Your task to perform on an android device: open device folders in google photos Image 0: 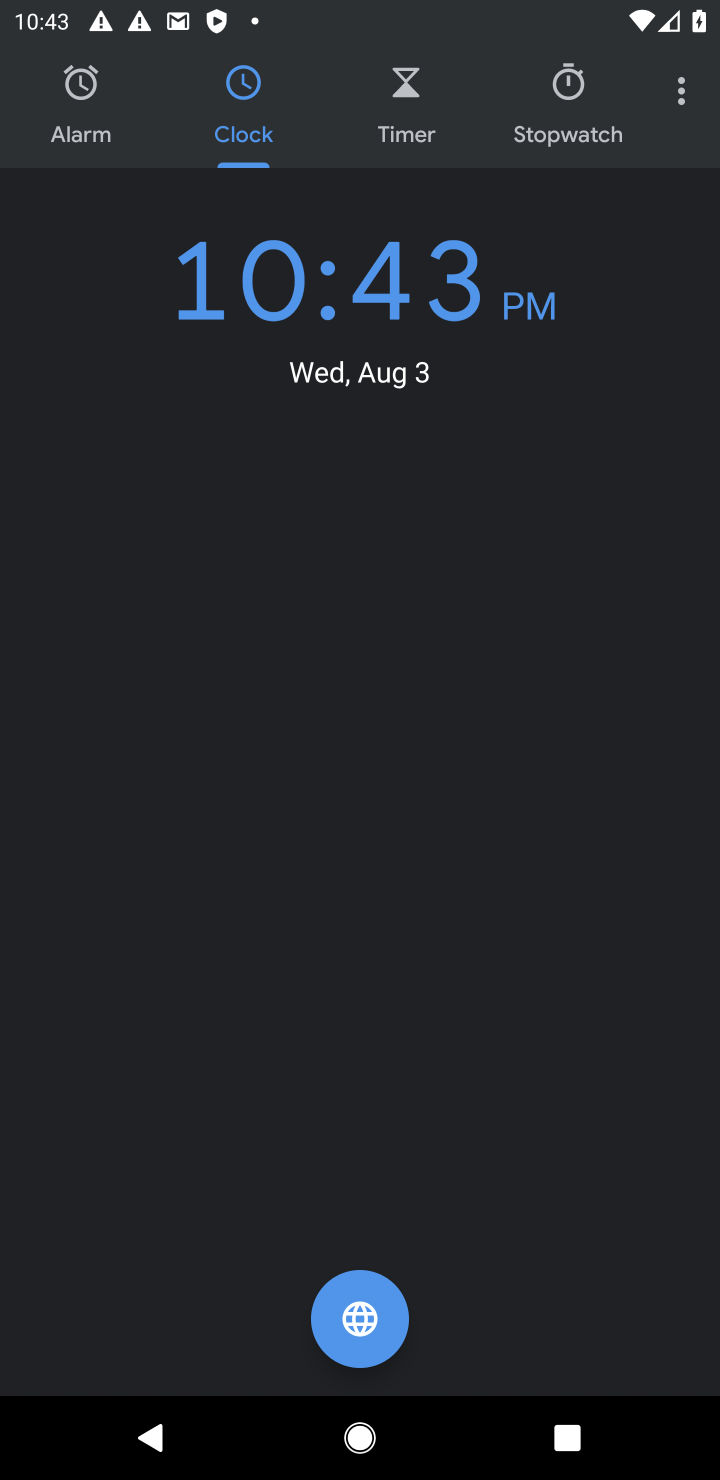
Step 0: press home button
Your task to perform on an android device: open device folders in google photos Image 1: 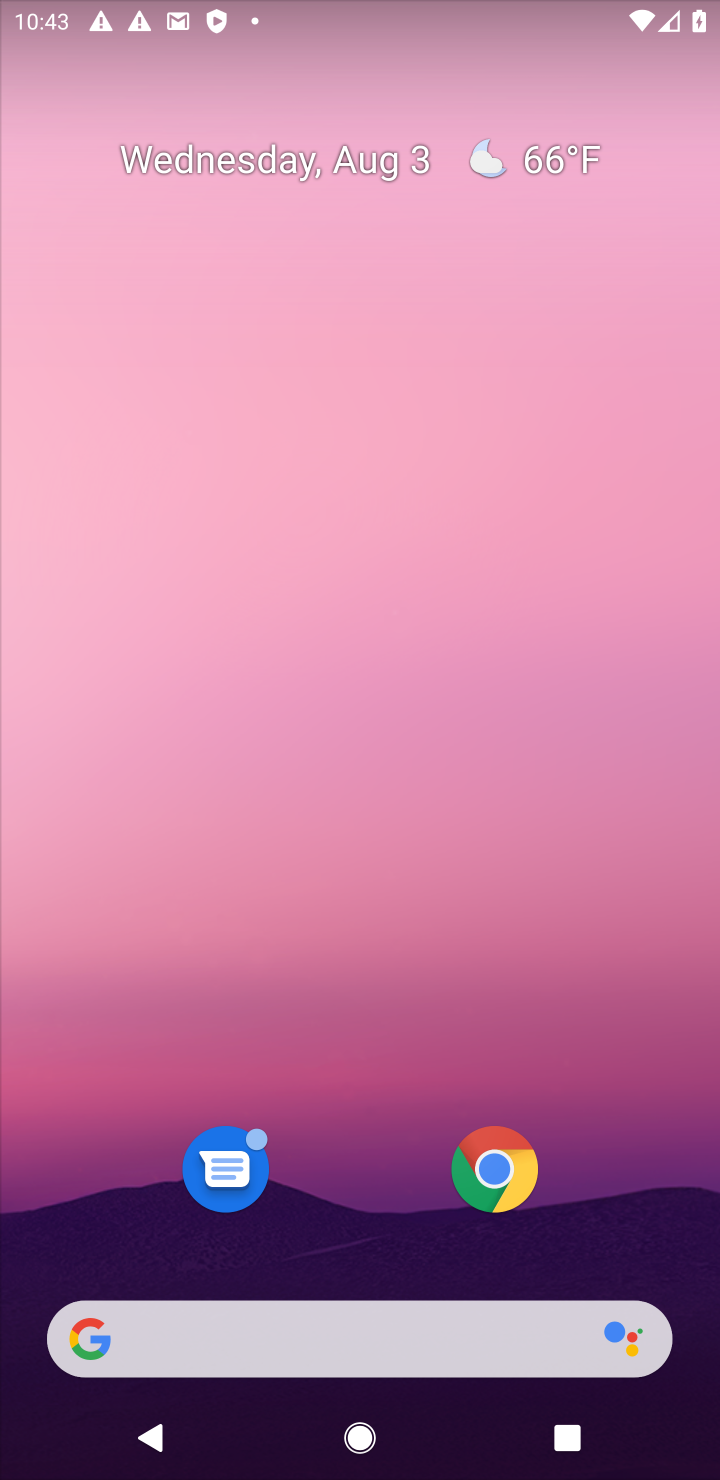
Step 1: drag from (368, 1050) to (348, 2)
Your task to perform on an android device: open device folders in google photos Image 2: 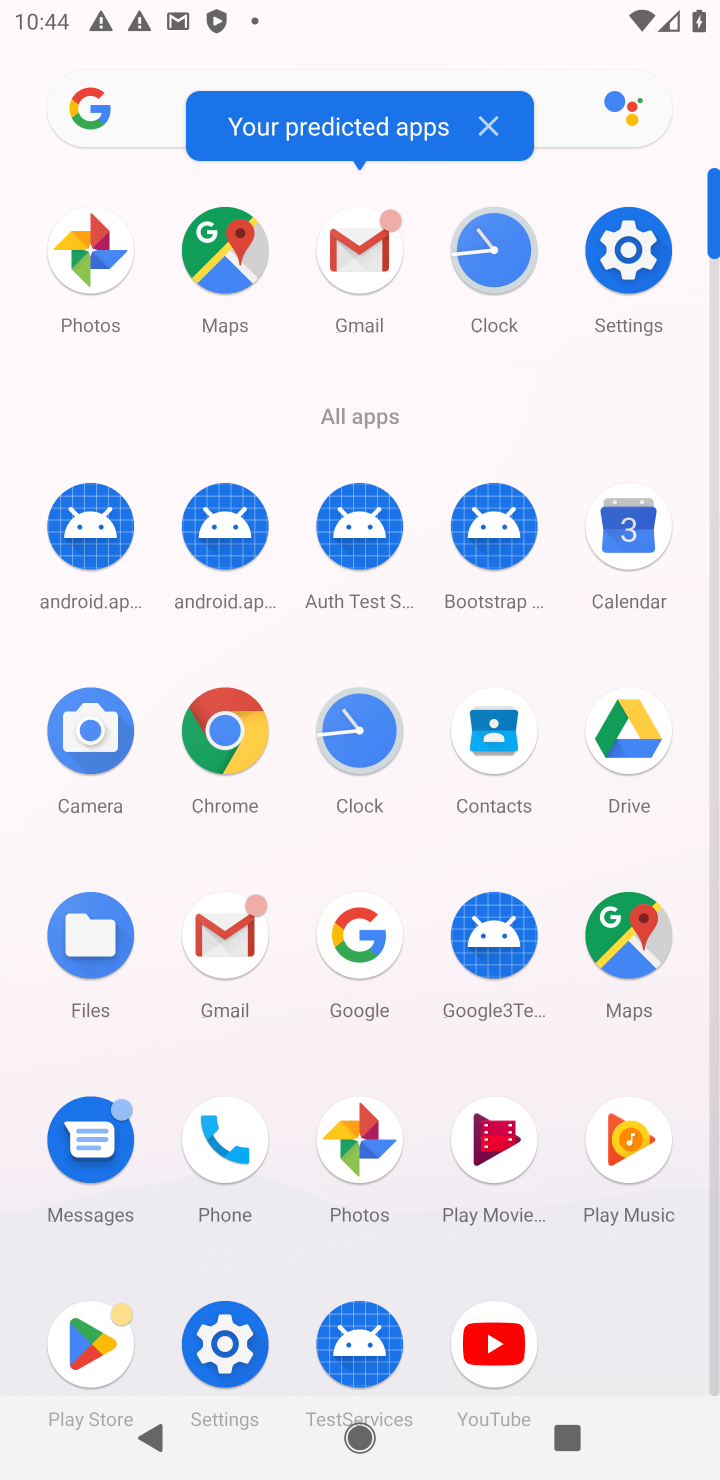
Step 2: click (366, 1135)
Your task to perform on an android device: open device folders in google photos Image 3: 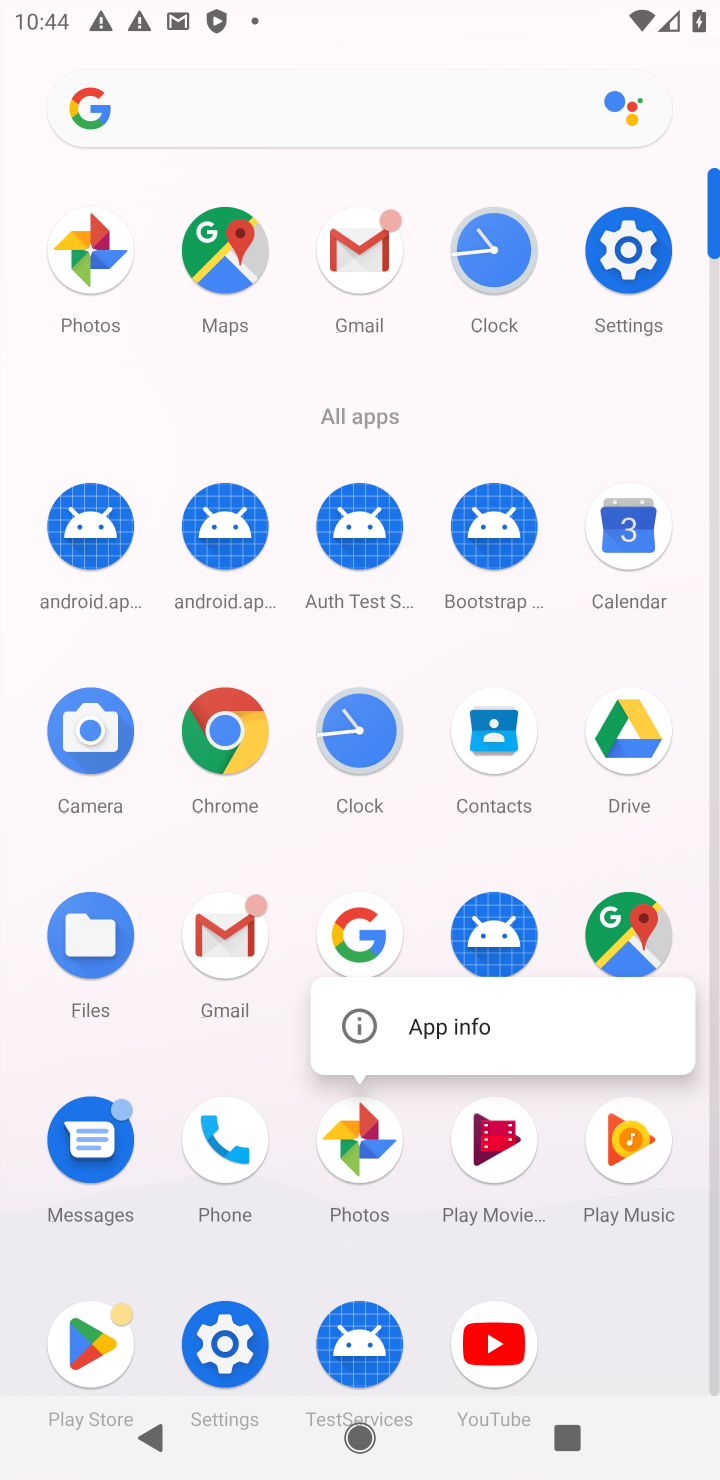
Step 3: click (366, 1135)
Your task to perform on an android device: open device folders in google photos Image 4: 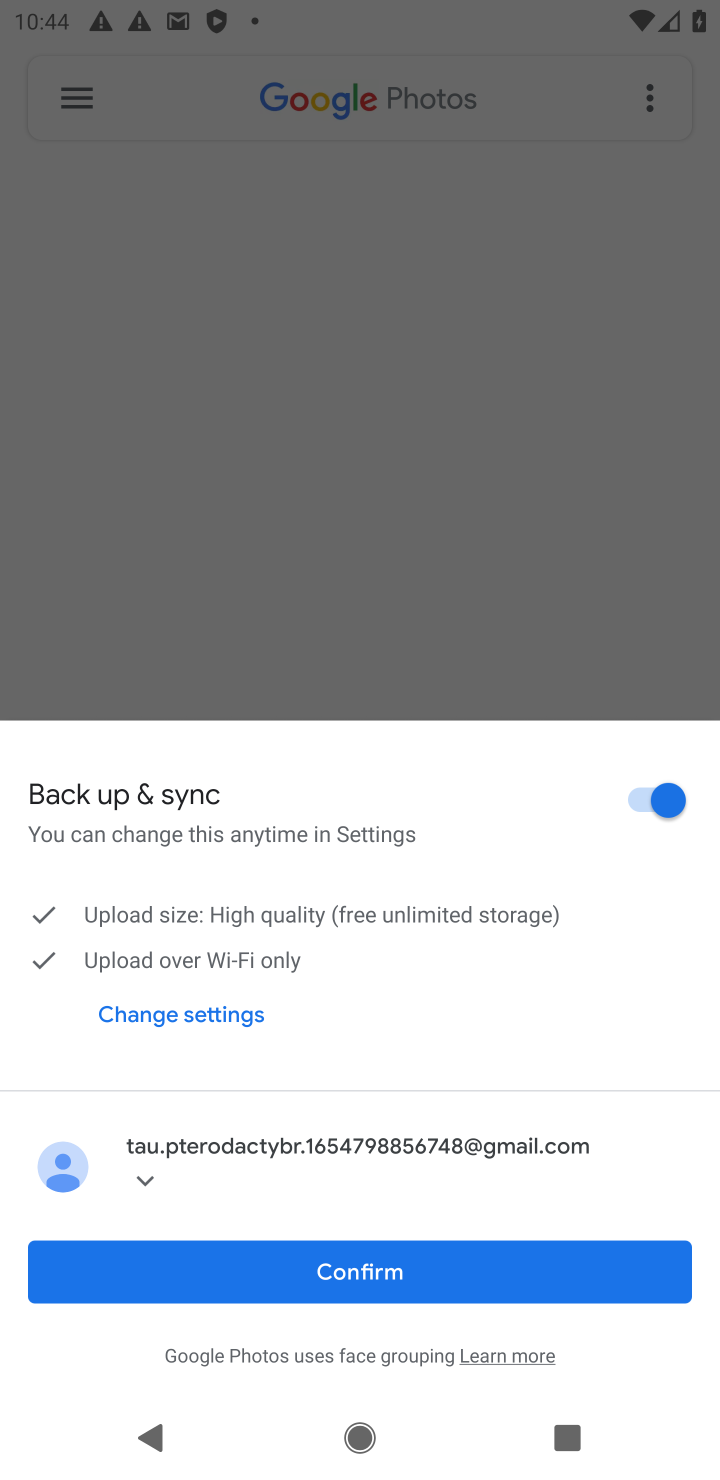
Step 4: click (354, 1273)
Your task to perform on an android device: open device folders in google photos Image 5: 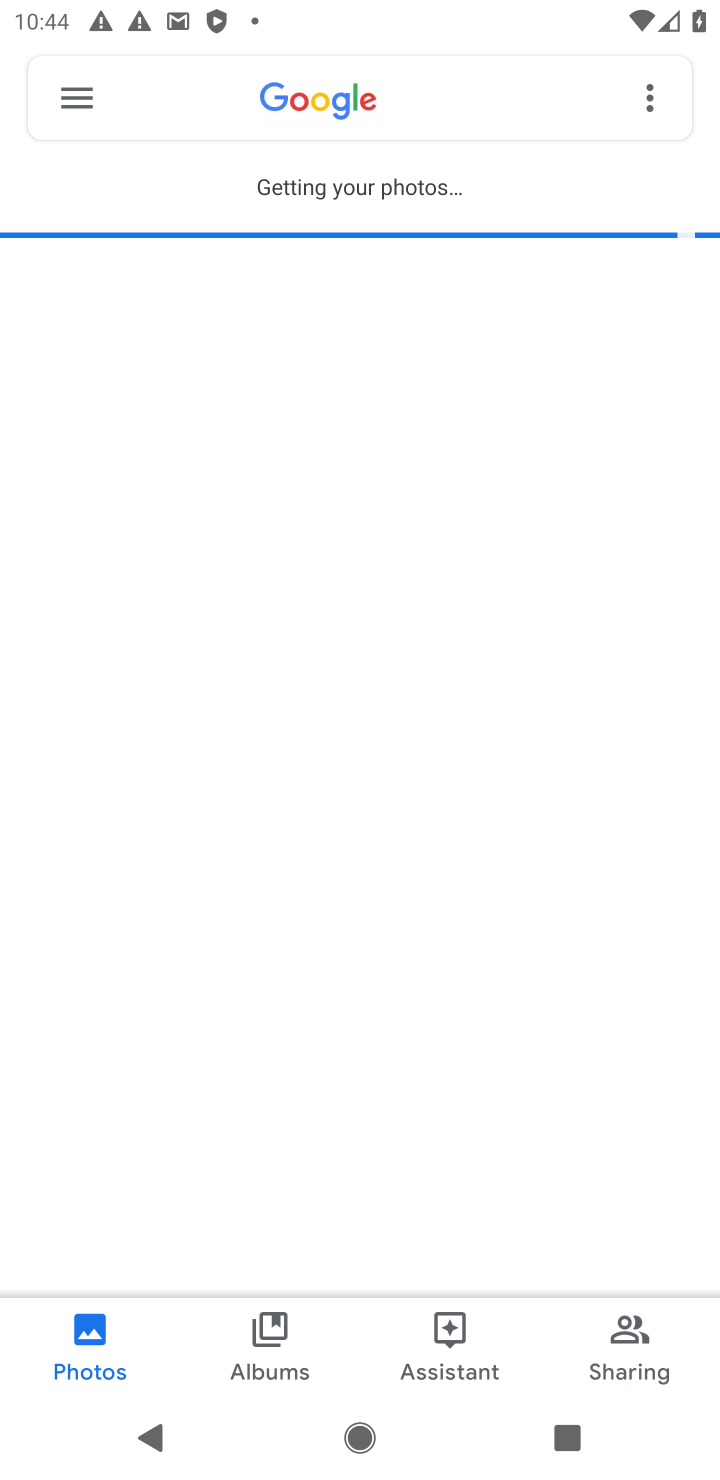
Step 5: click (85, 116)
Your task to perform on an android device: open device folders in google photos Image 6: 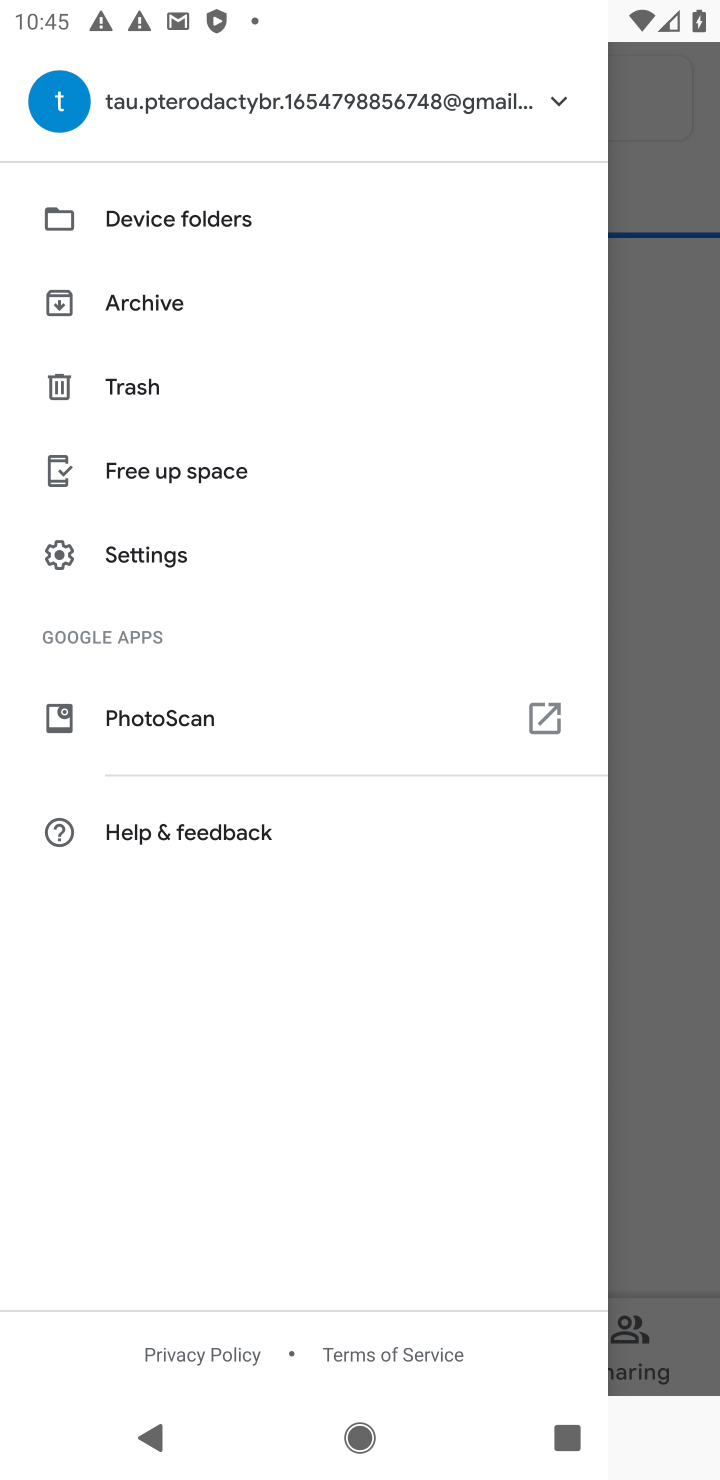
Step 6: click (105, 239)
Your task to perform on an android device: open device folders in google photos Image 7: 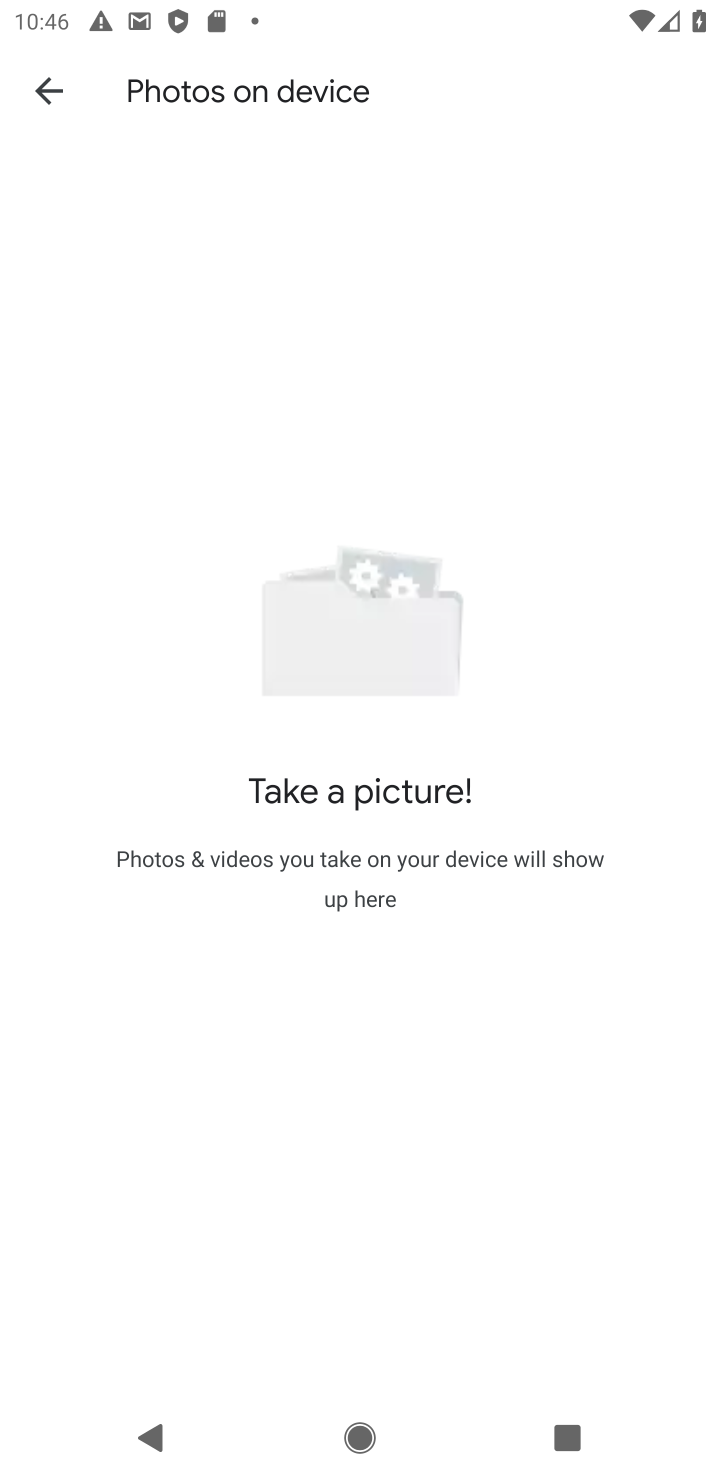
Step 7: task complete